Your task to perform on an android device: install app "Etsy: Buy & Sell Unique Items" Image 0: 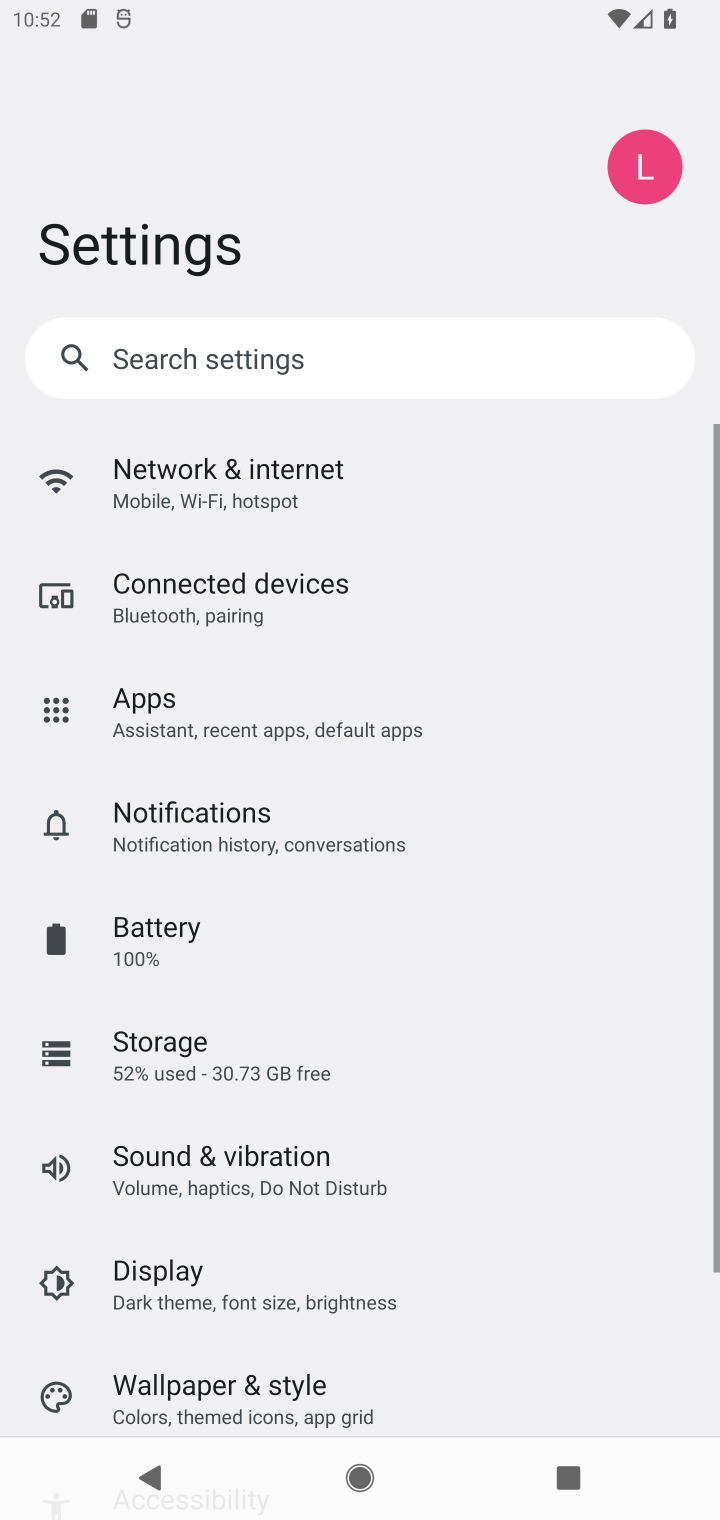
Step 0: press home button
Your task to perform on an android device: install app "Etsy: Buy & Sell Unique Items" Image 1: 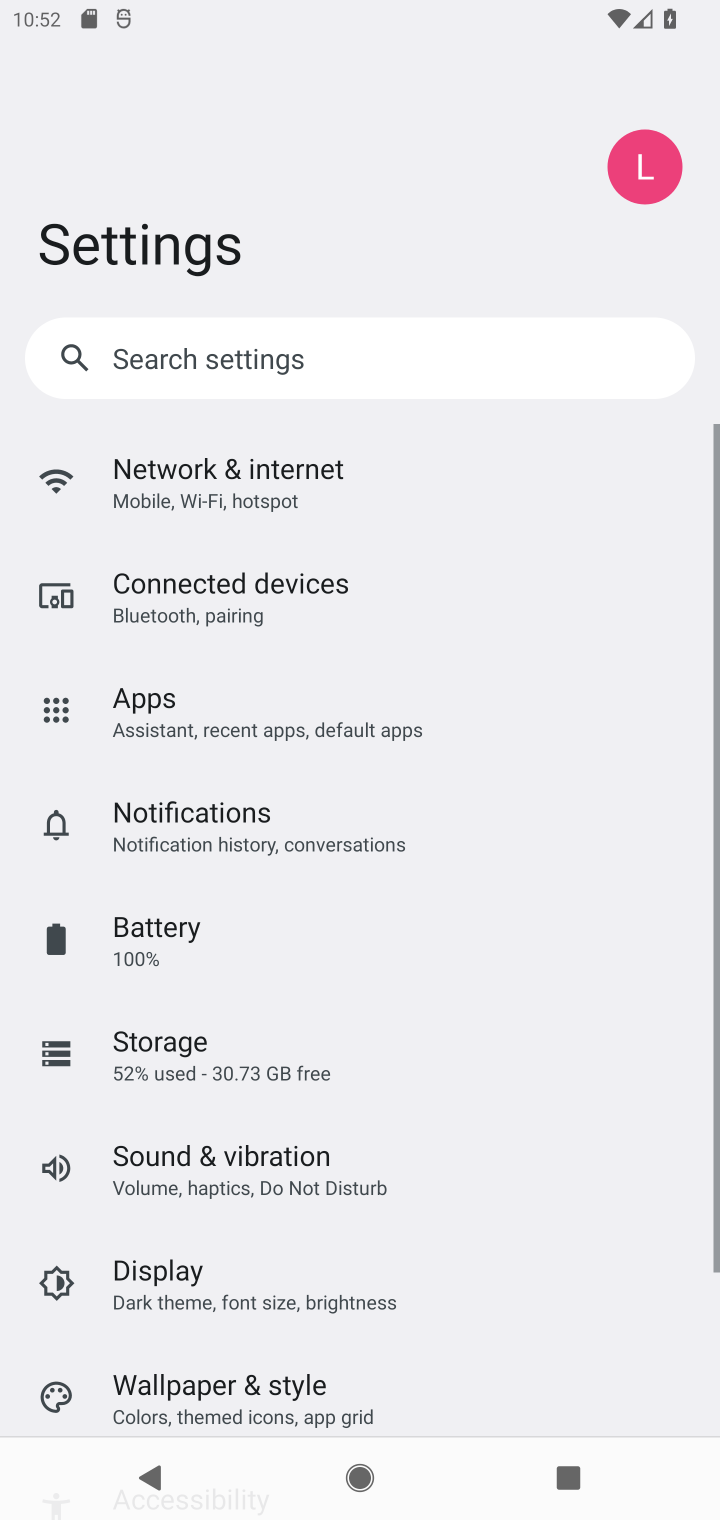
Step 1: press home button
Your task to perform on an android device: install app "Etsy: Buy & Sell Unique Items" Image 2: 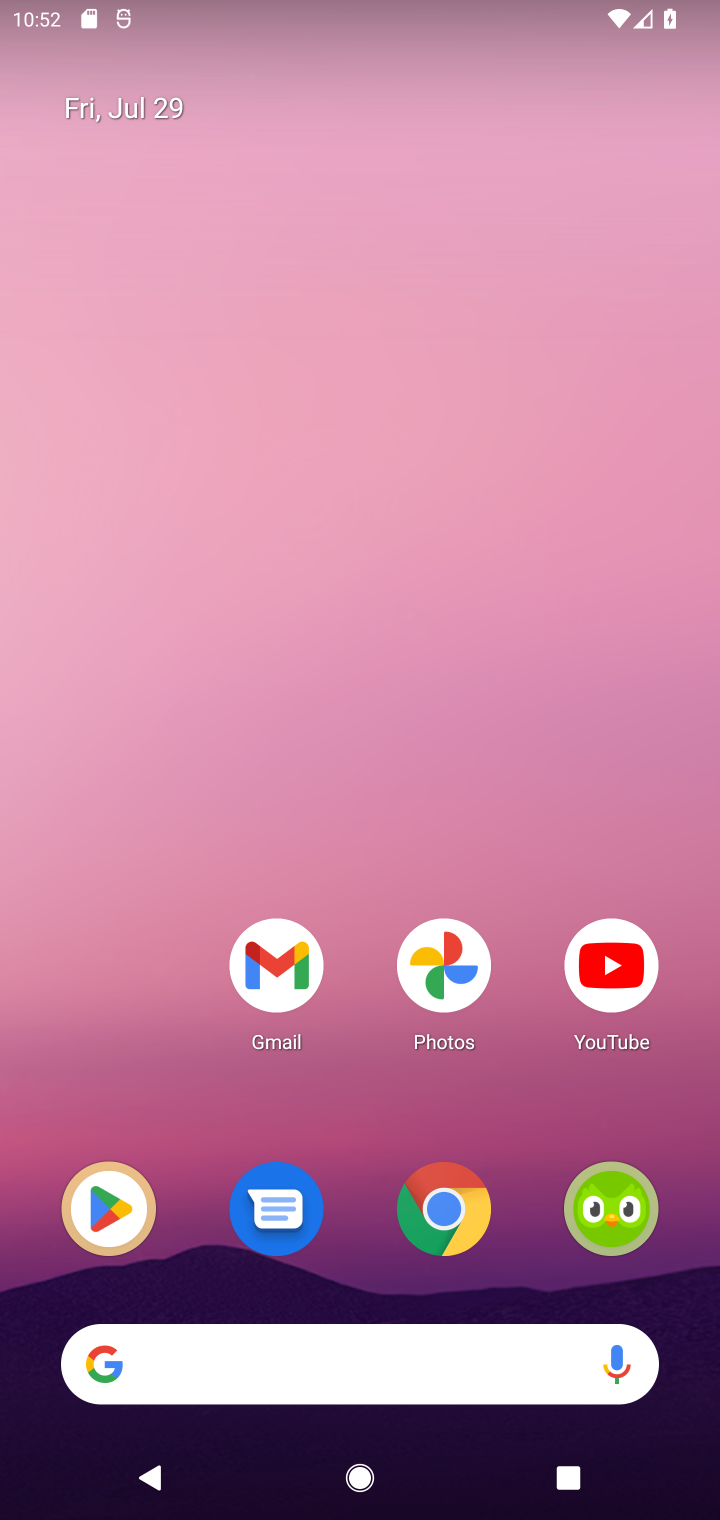
Step 2: drag from (542, 1011) to (528, 59)
Your task to perform on an android device: install app "Etsy: Buy & Sell Unique Items" Image 3: 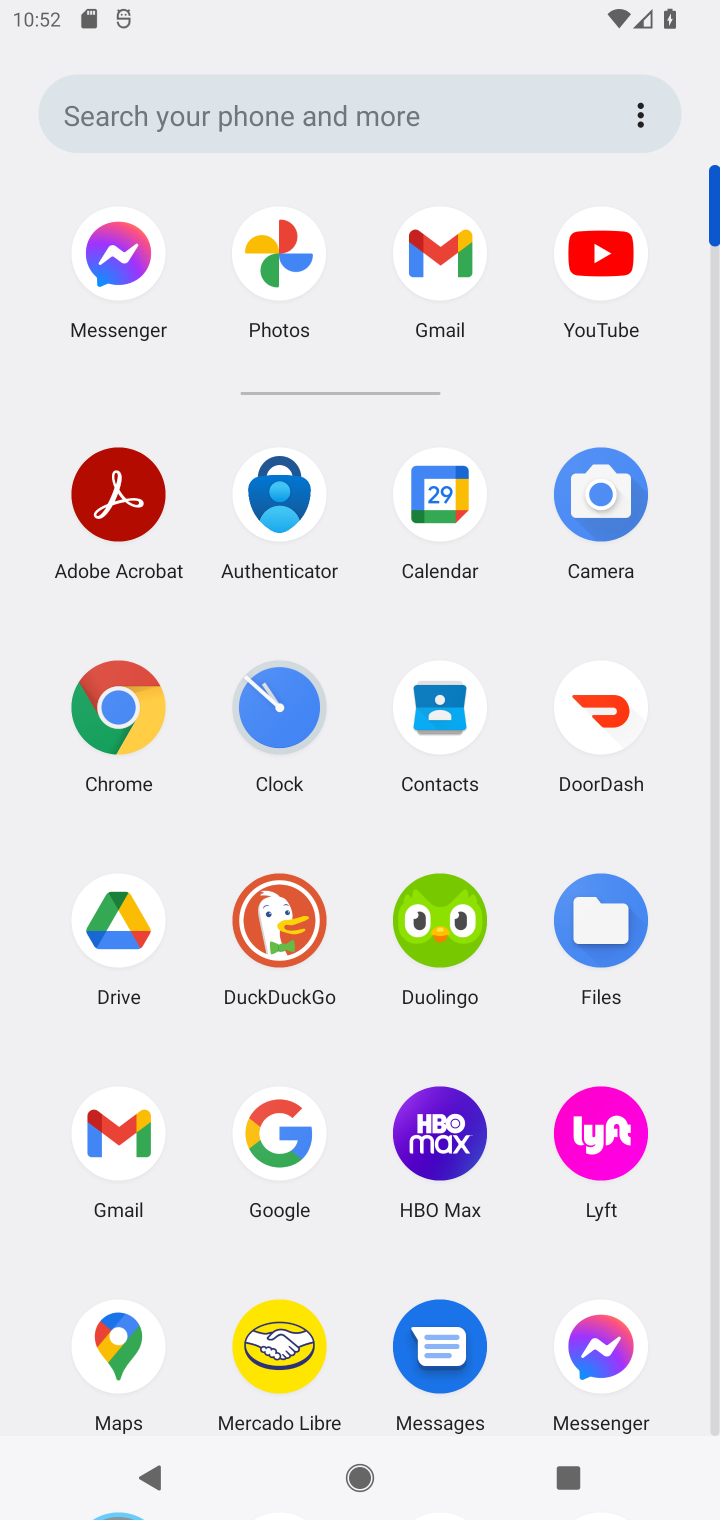
Step 3: drag from (521, 1177) to (534, 414)
Your task to perform on an android device: install app "Etsy: Buy & Sell Unique Items" Image 4: 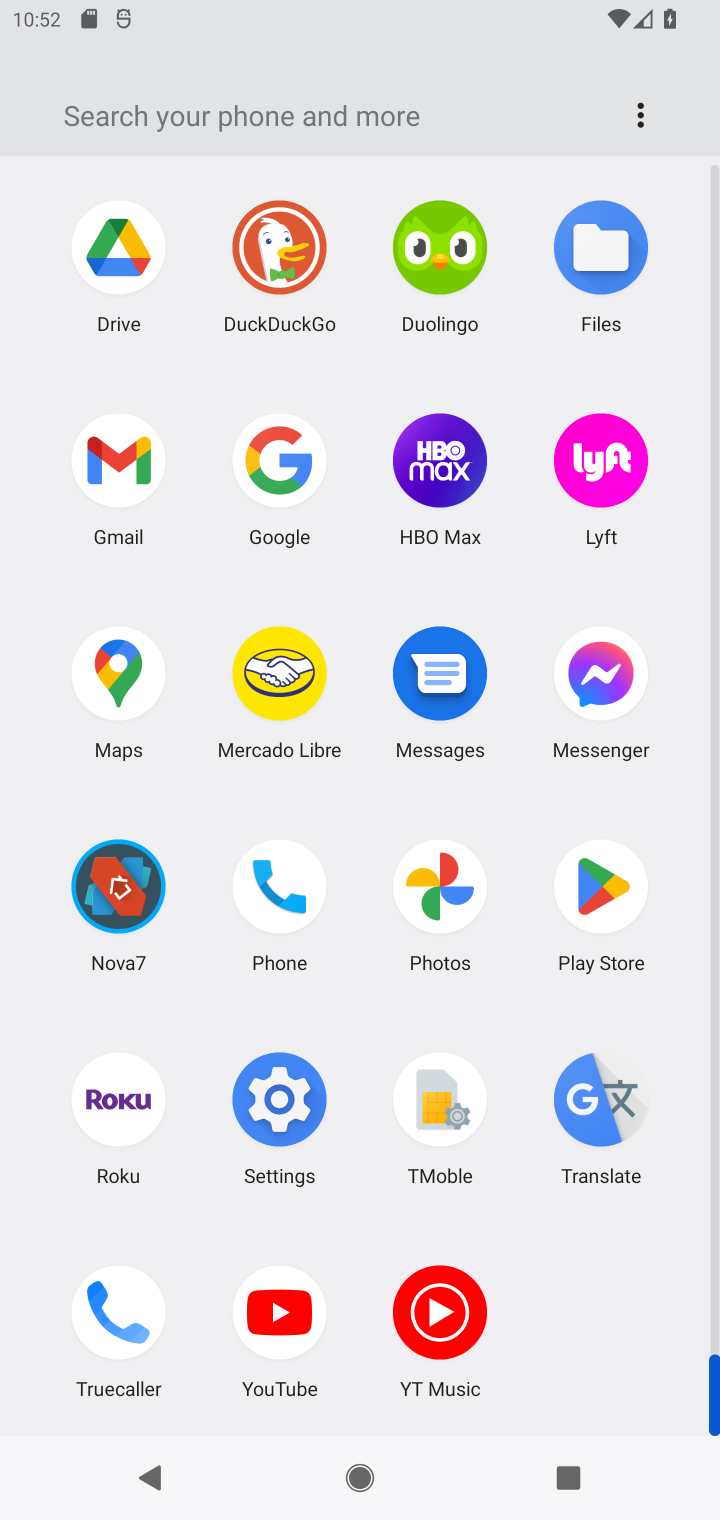
Step 4: click (584, 899)
Your task to perform on an android device: install app "Etsy: Buy & Sell Unique Items" Image 5: 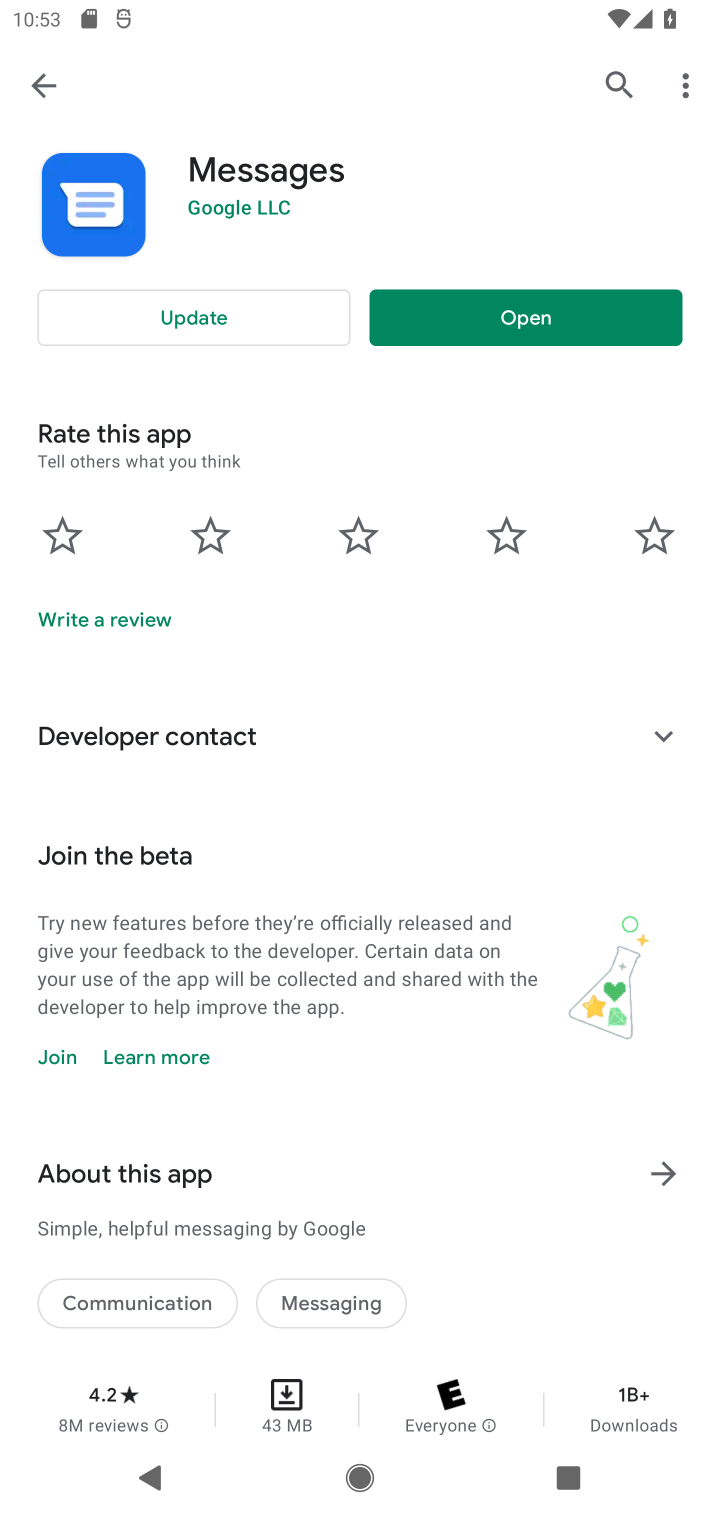
Step 5: click (600, 81)
Your task to perform on an android device: install app "Etsy: Buy & Sell Unique Items" Image 6: 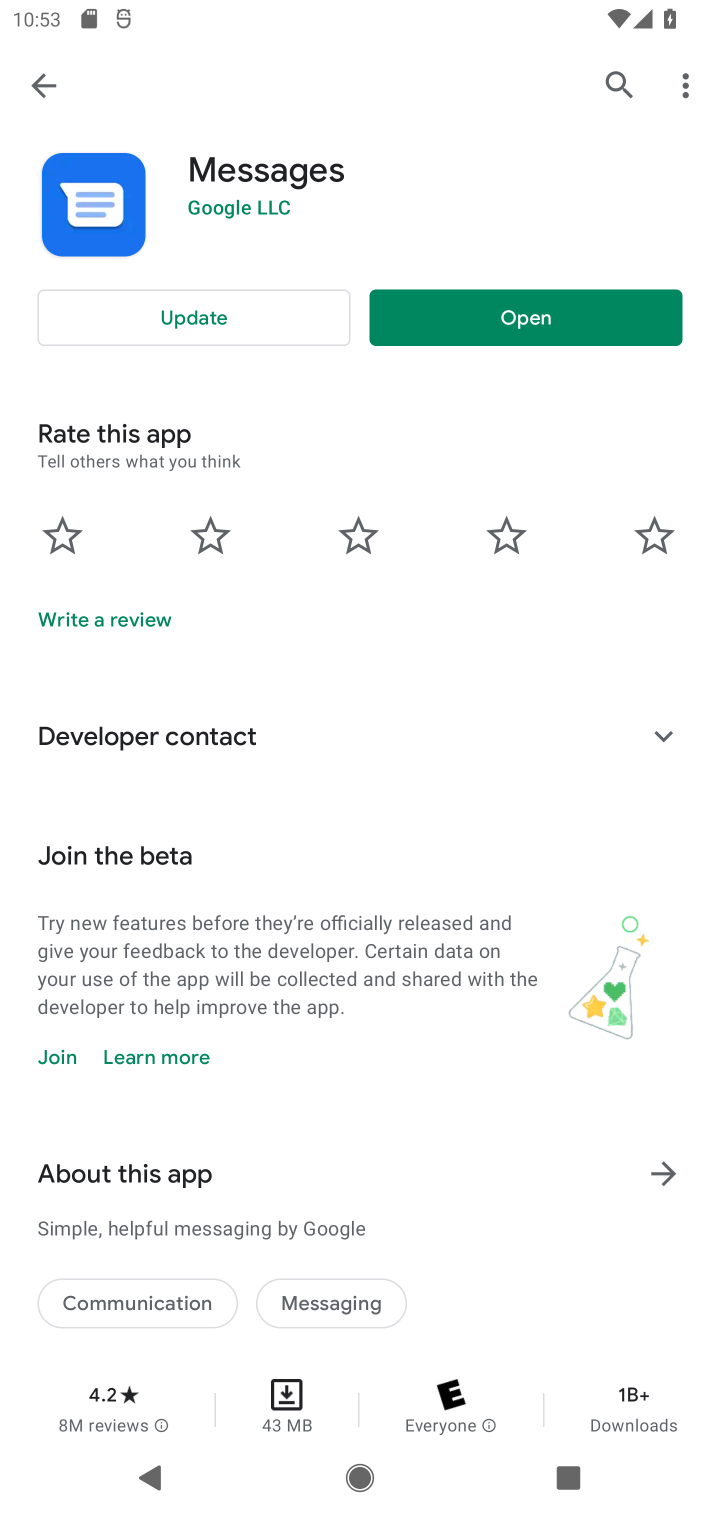
Step 6: click (618, 96)
Your task to perform on an android device: install app "Etsy: Buy & Sell Unique Items" Image 7: 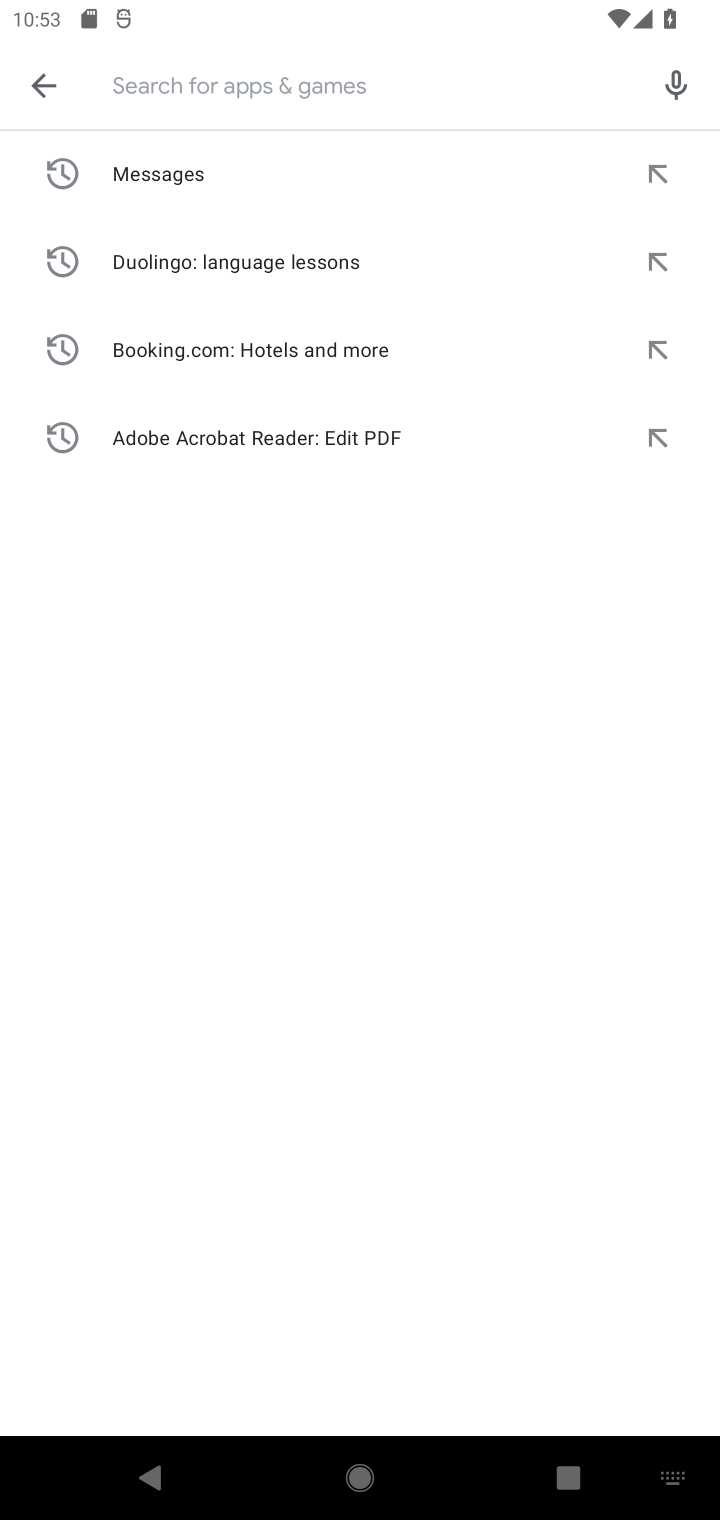
Step 7: type "Etsy: Buy & Sell Unique Items"
Your task to perform on an android device: install app "Etsy: Buy & Sell Unique Items" Image 8: 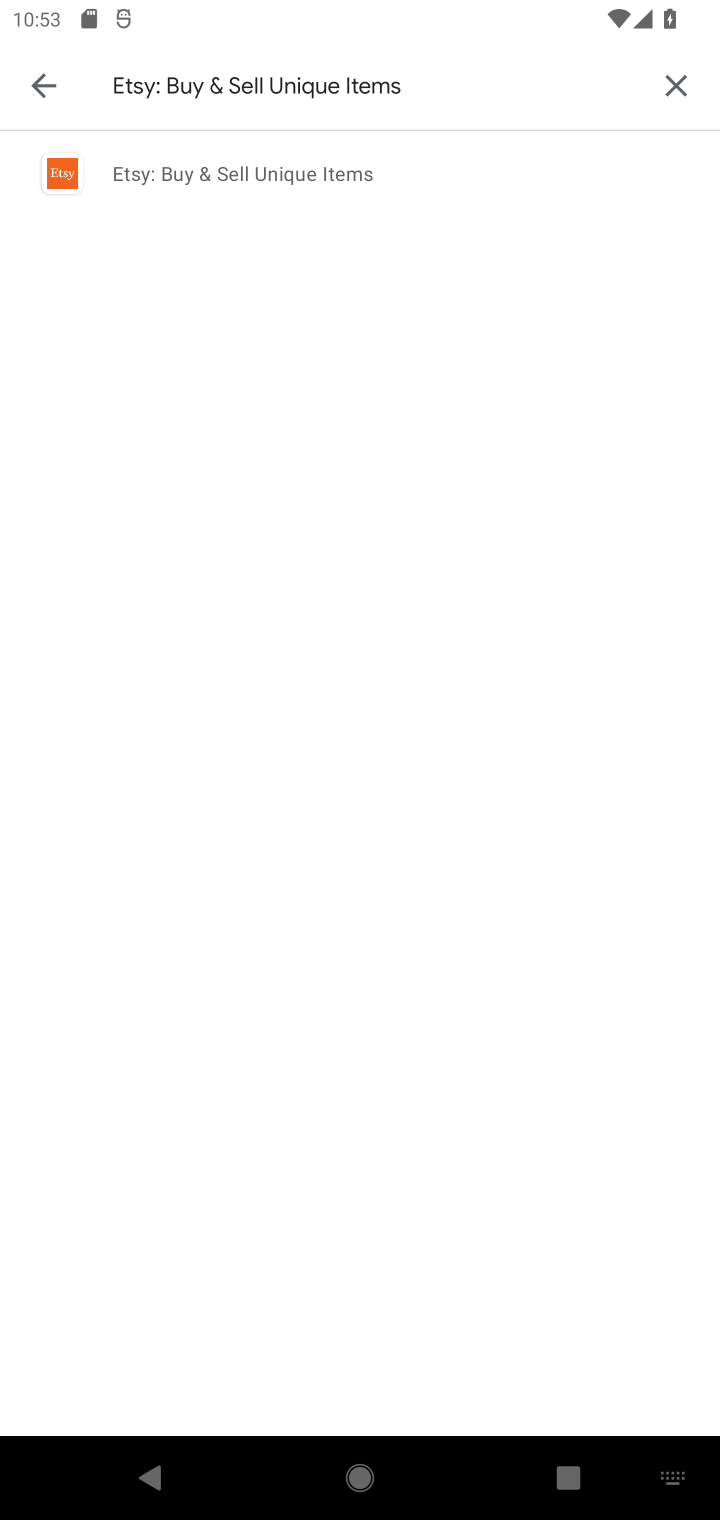
Step 8: press enter
Your task to perform on an android device: install app "Etsy: Buy & Sell Unique Items" Image 9: 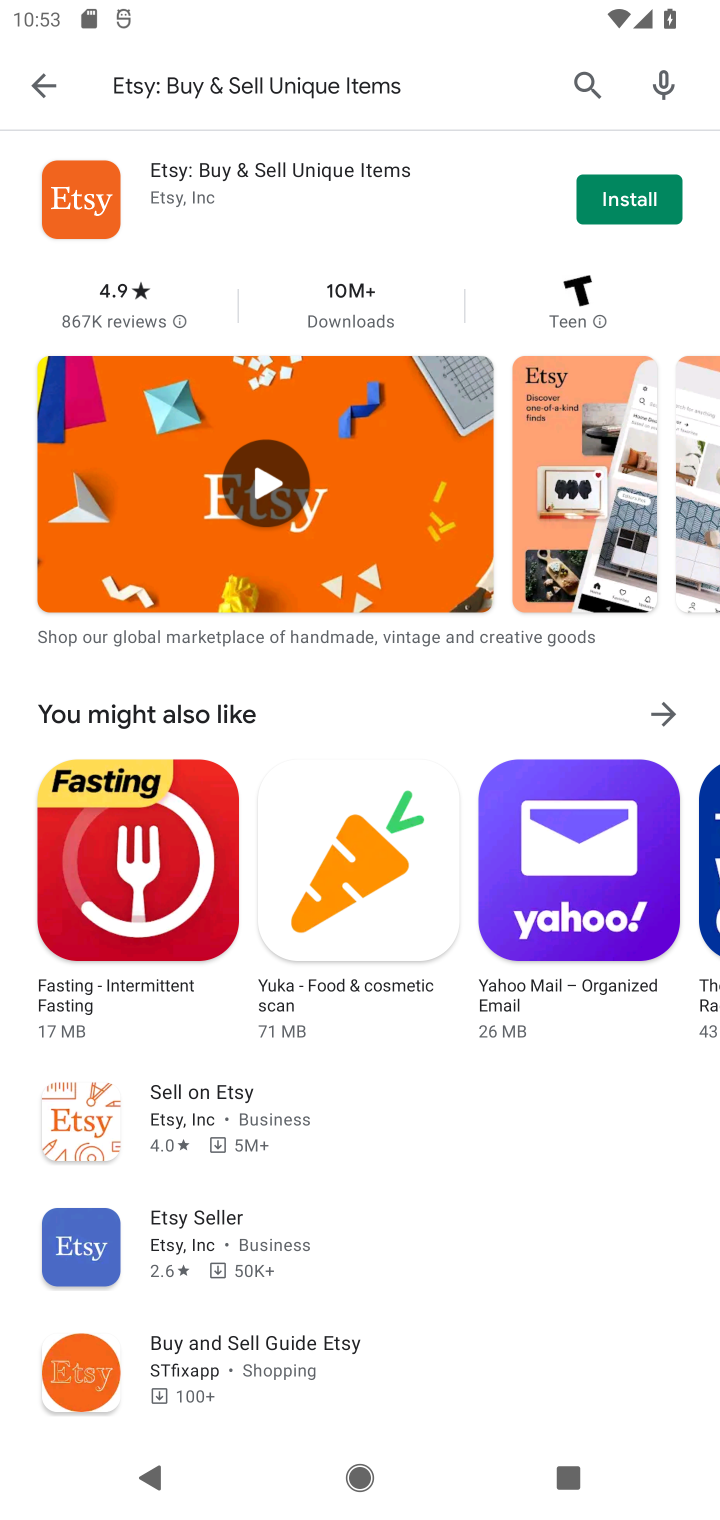
Step 9: click (615, 202)
Your task to perform on an android device: install app "Etsy: Buy & Sell Unique Items" Image 10: 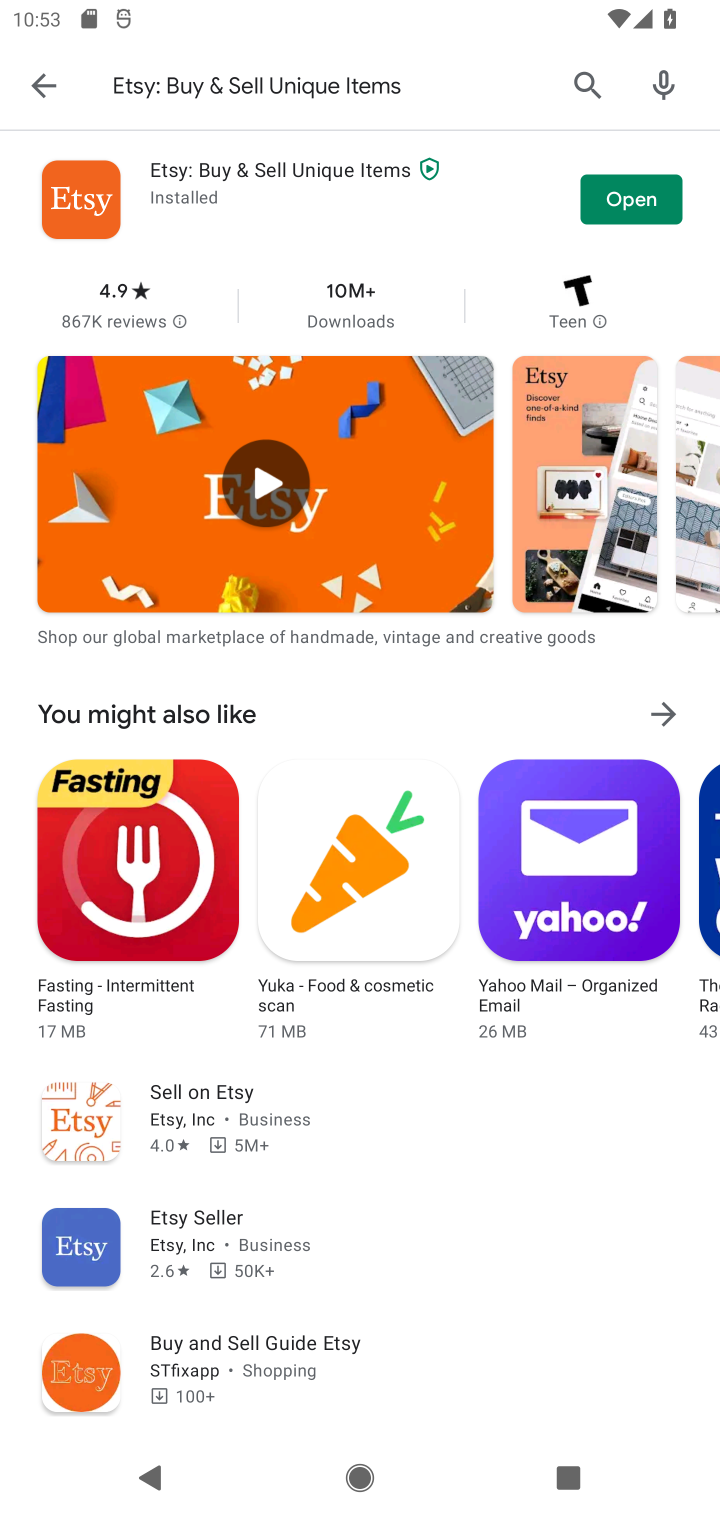
Step 10: task complete